Your task to perform on an android device: check the backup settings in the google photos Image 0: 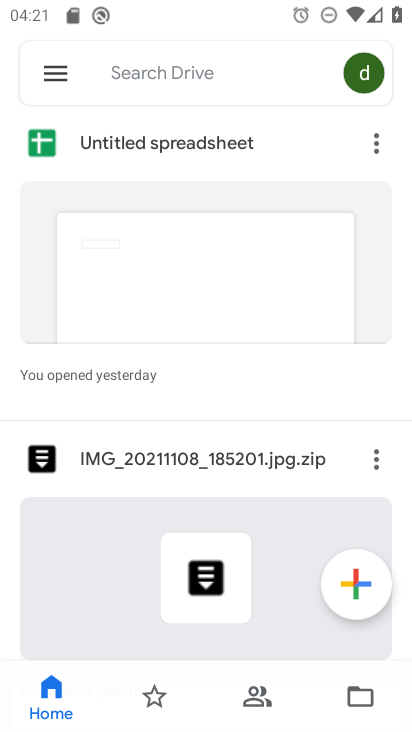
Step 0: press home button
Your task to perform on an android device: check the backup settings in the google photos Image 1: 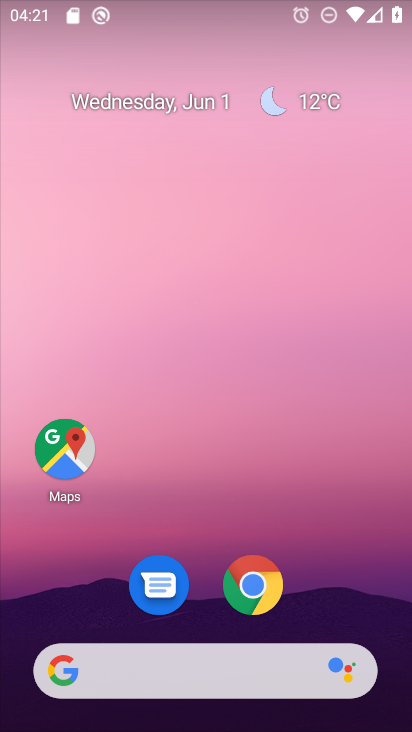
Step 1: drag from (304, 568) to (294, 32)
Your task to perform on an android device: check the backup settings in the google photos Image 2: 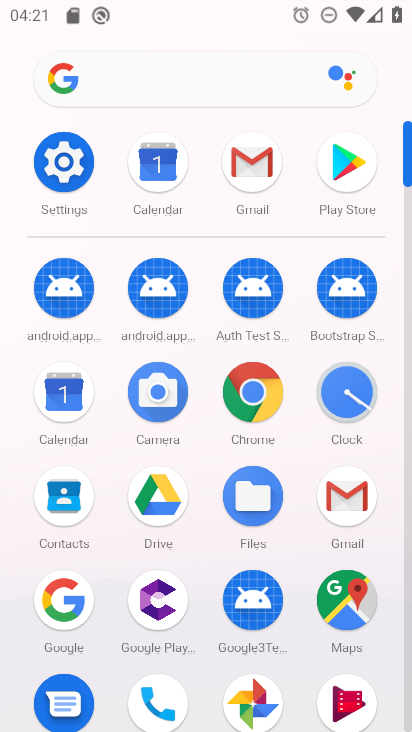
Step 2: click (257, 695)
Your task to perform on an android device: check the backup settings in the google photos Image 3: 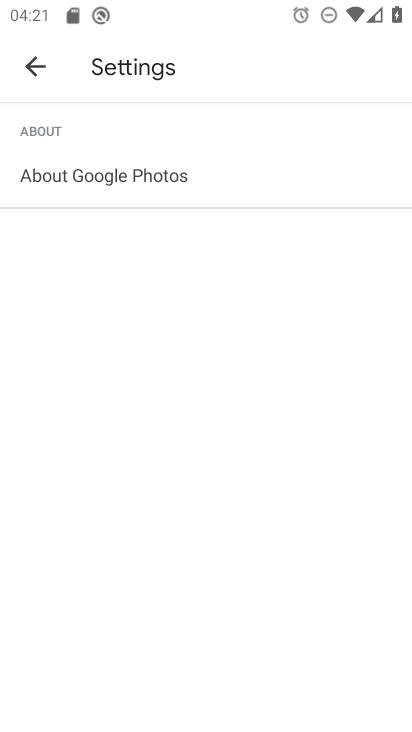
Step 3: click (40, 57)
Your task to perform on an android device: check the backup settings in the google photos Image 4: 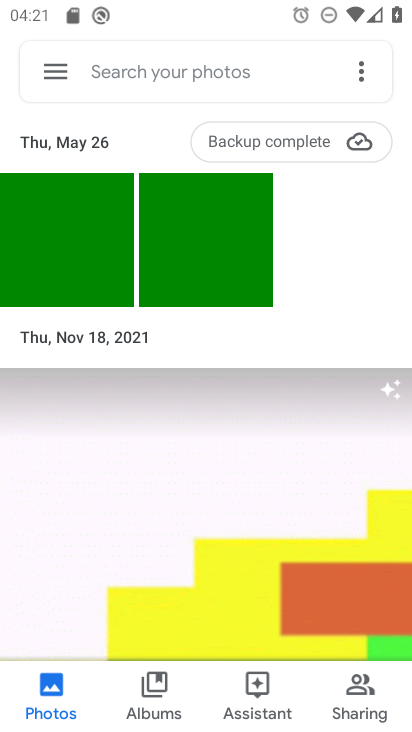
Step 4: click (51, 65)
Your task to perform on an android device: check the backup settings in the google photos Image 5: 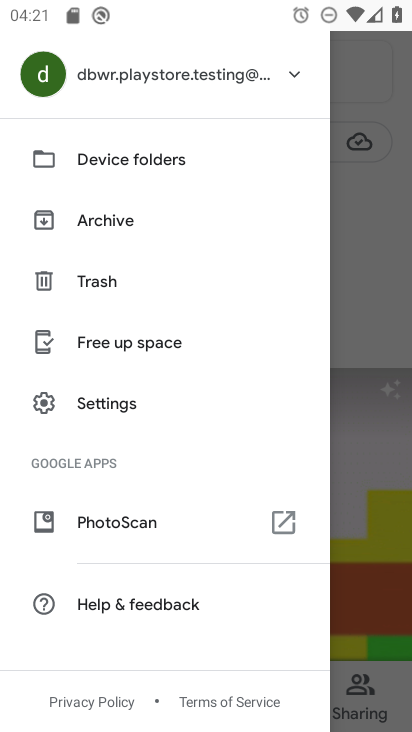
Step 5: click (108, 398)
Your task to perform on an android device: check the backup settings in the google photos Image 6: 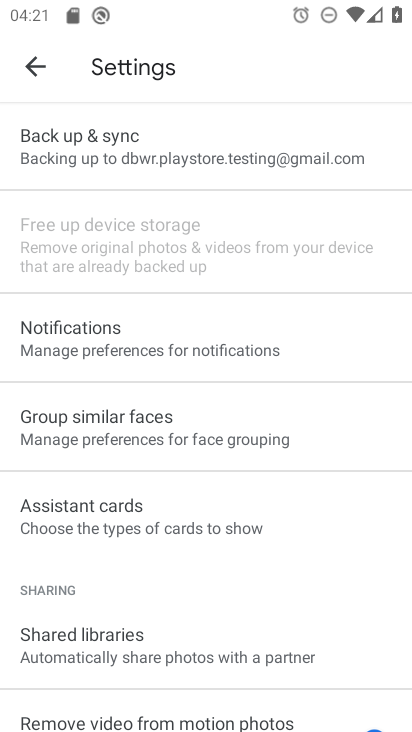
Step 6: click (181, 142)
Your task to perform on an android device: check the backup settings in the google photos Image 7: 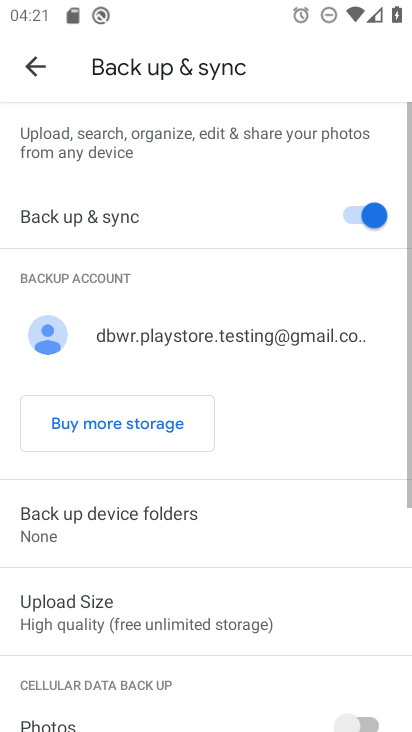
Step 7: task complete